Your task to perform on an android device: Open notification settings Image 0: 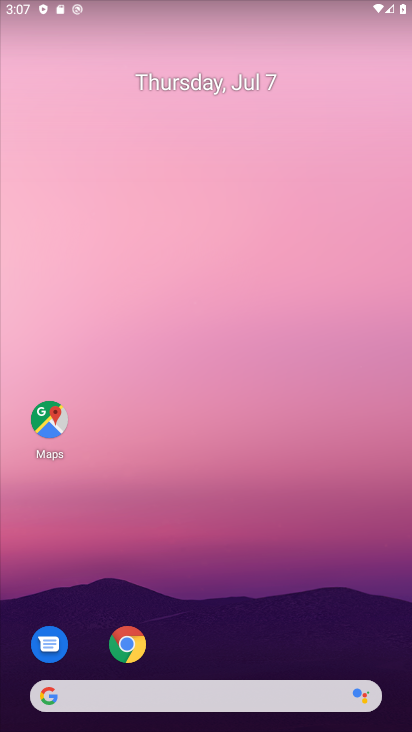
Step 0: drag from (192, 674) to (184, 59)
Your task to perform on an android device: Open notification settings Image 1: 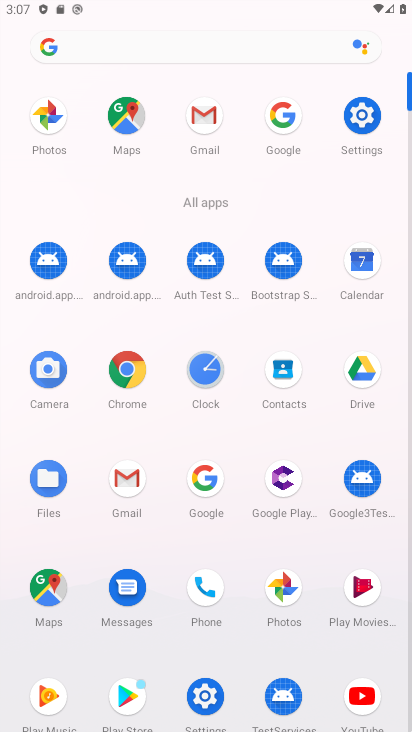
Step 1: click (216, 691)
Your task to perform on an android device: Open notification settings Image 2: 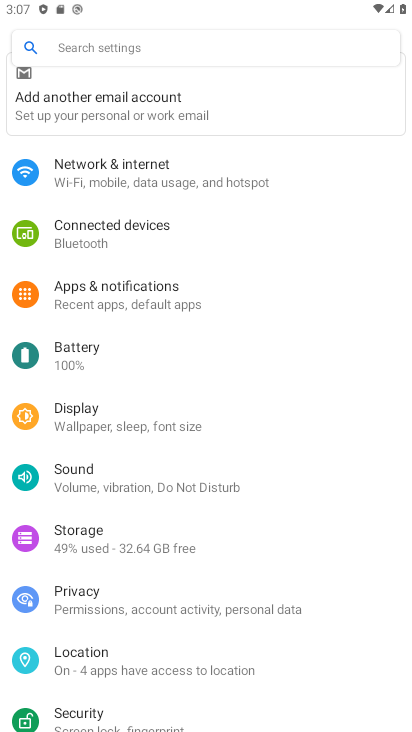
Step 2: drag from (164, 512) to (137, 331)
Your task to perform on an android device: Open notification settings Image 3: 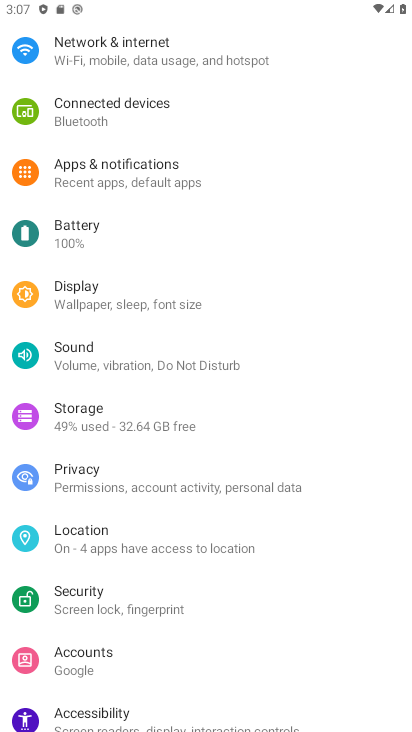
Step 3: click (104, 156)
Your task to perform on an android device: Open notification settings Image 4: 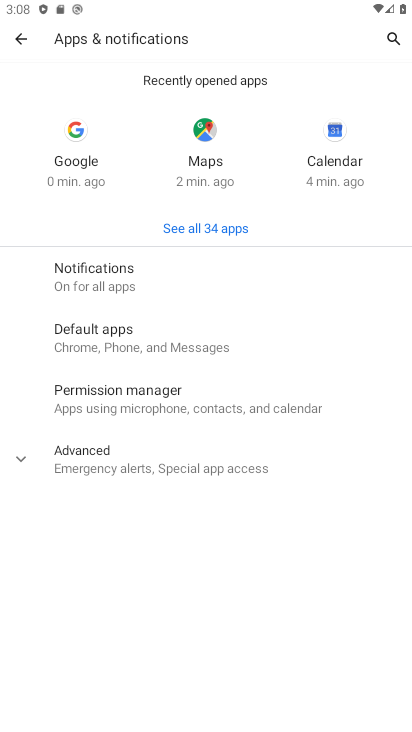
Step 4: click (110, 295)
Your task to perform on an android device: Open notification settings Image 5: 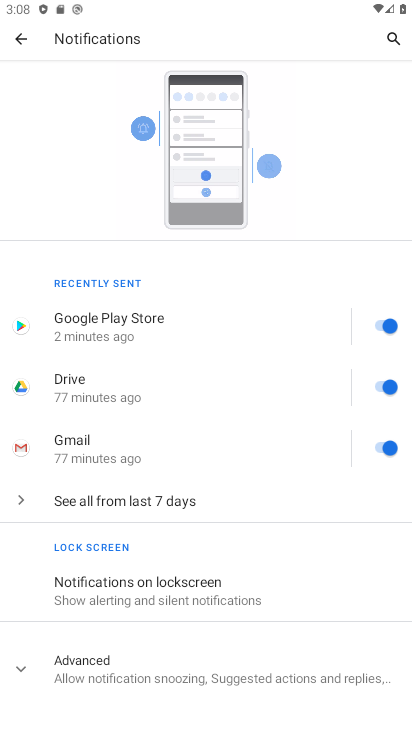
Step 5: task complete